Your task to perform on an android device: Show me productivity apps on the Play Store Image 0: 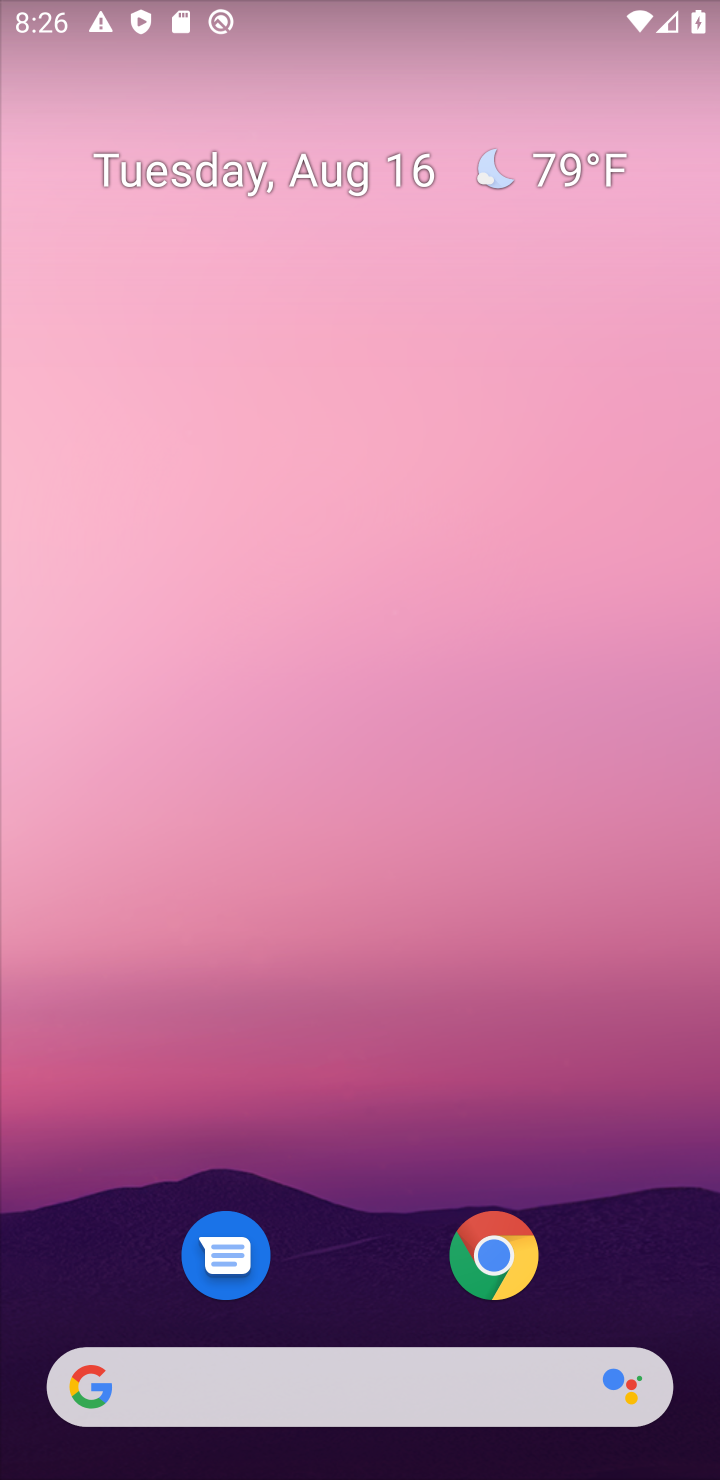
Step 0: drag from (325, 1406) to (463, 187)
Your task to perform on an android device: Show me productivity apps on the Play Store Image 1: 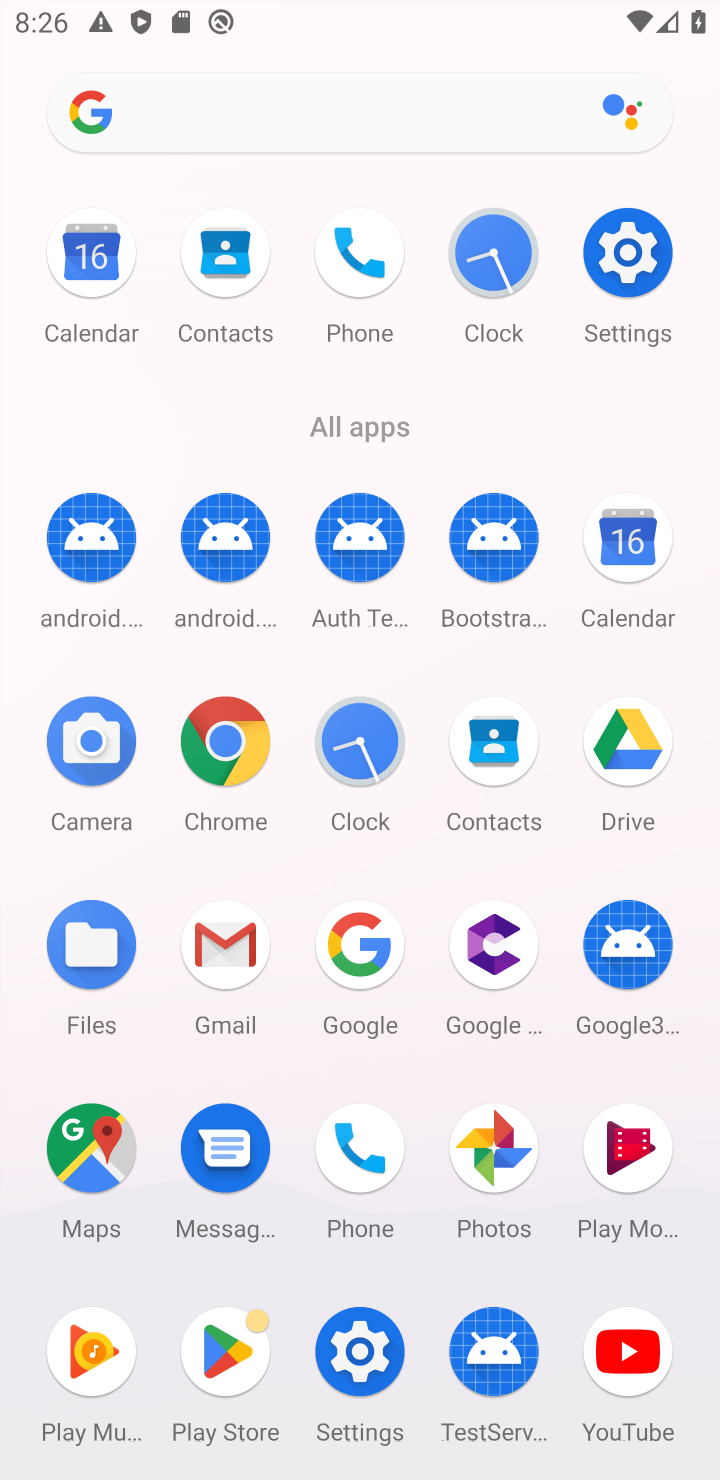
Step 1: click (242, 1359)
Your task to perform on an android device: Show me productivity apps on the Play Store Image 2: 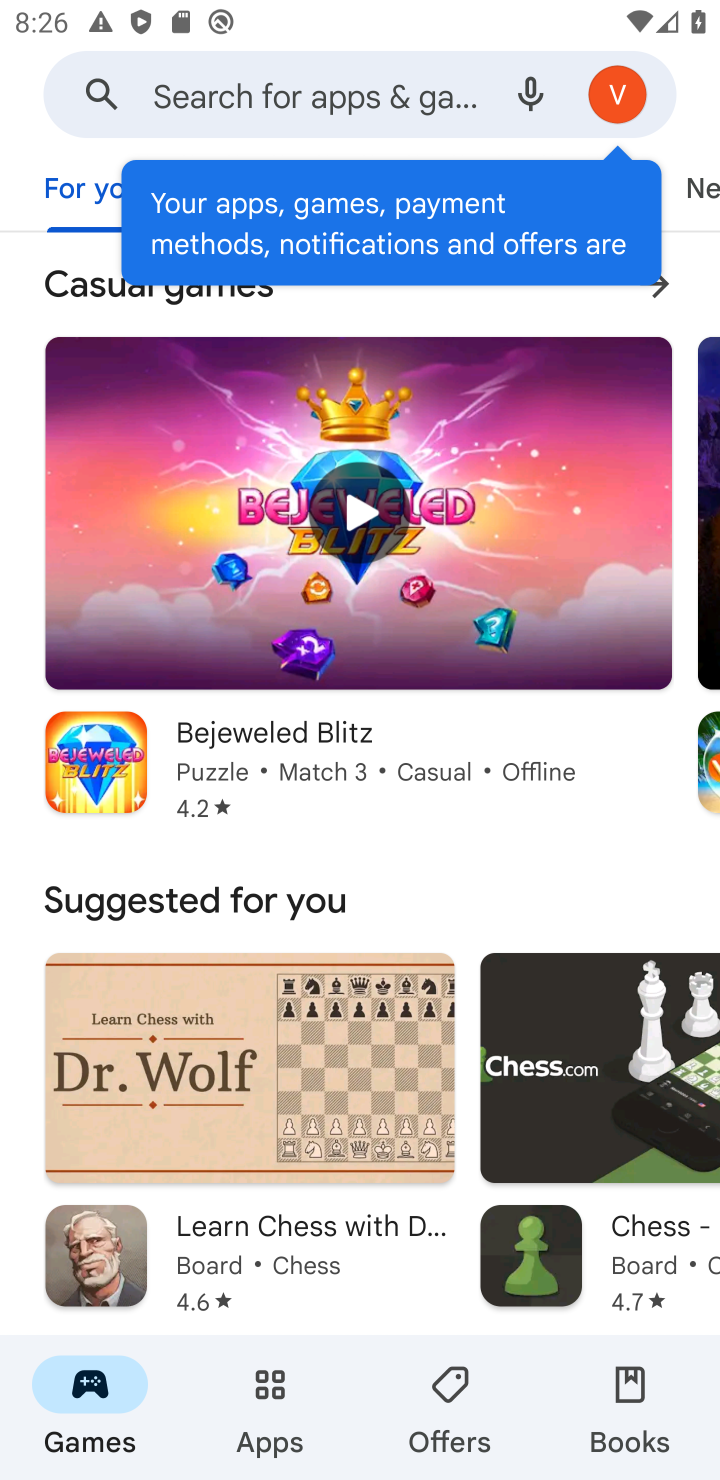
Step 2: click (144, 200)
Your task to perform on an android device: Show me productivity apps on the Play Store Image 3: 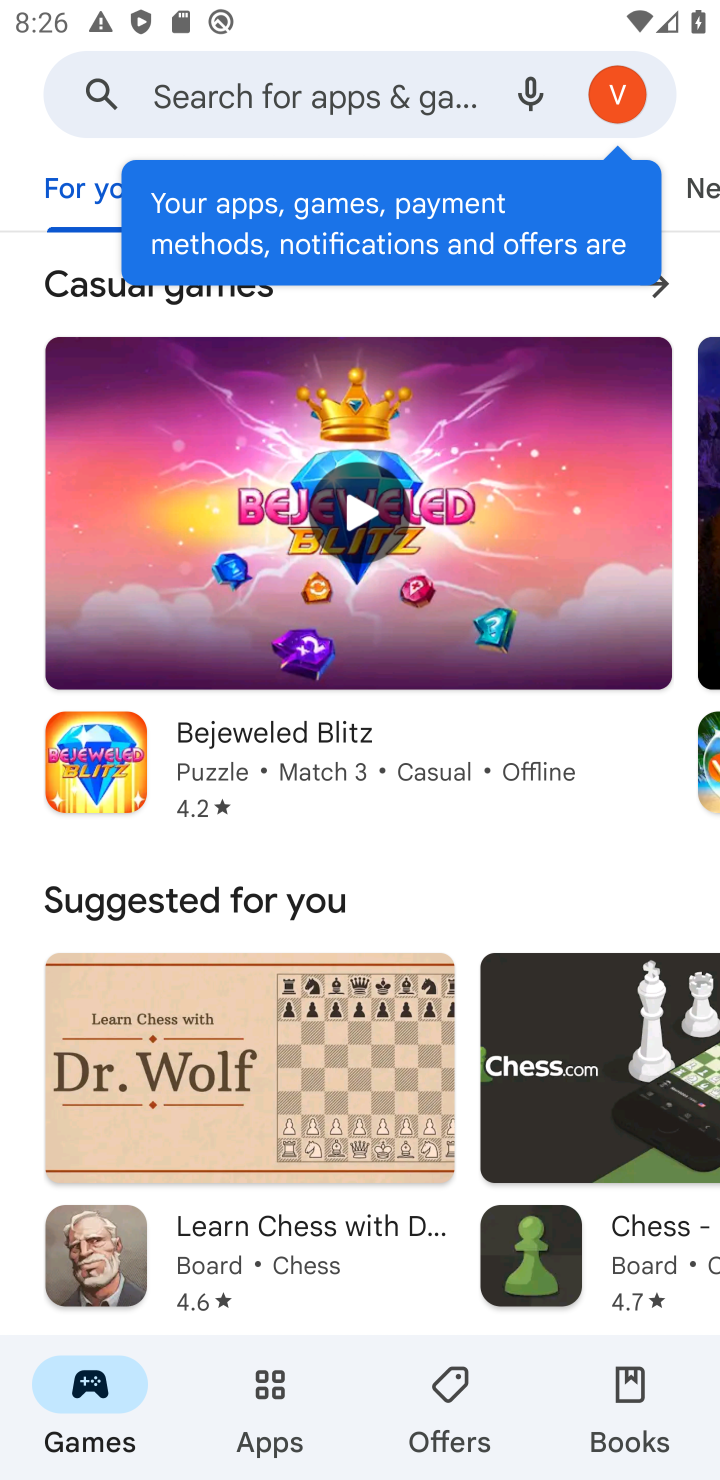
Step 3: click (80, 205)
Your task to perform on an android device: Show me productivity apps on the Play Store Image 4: 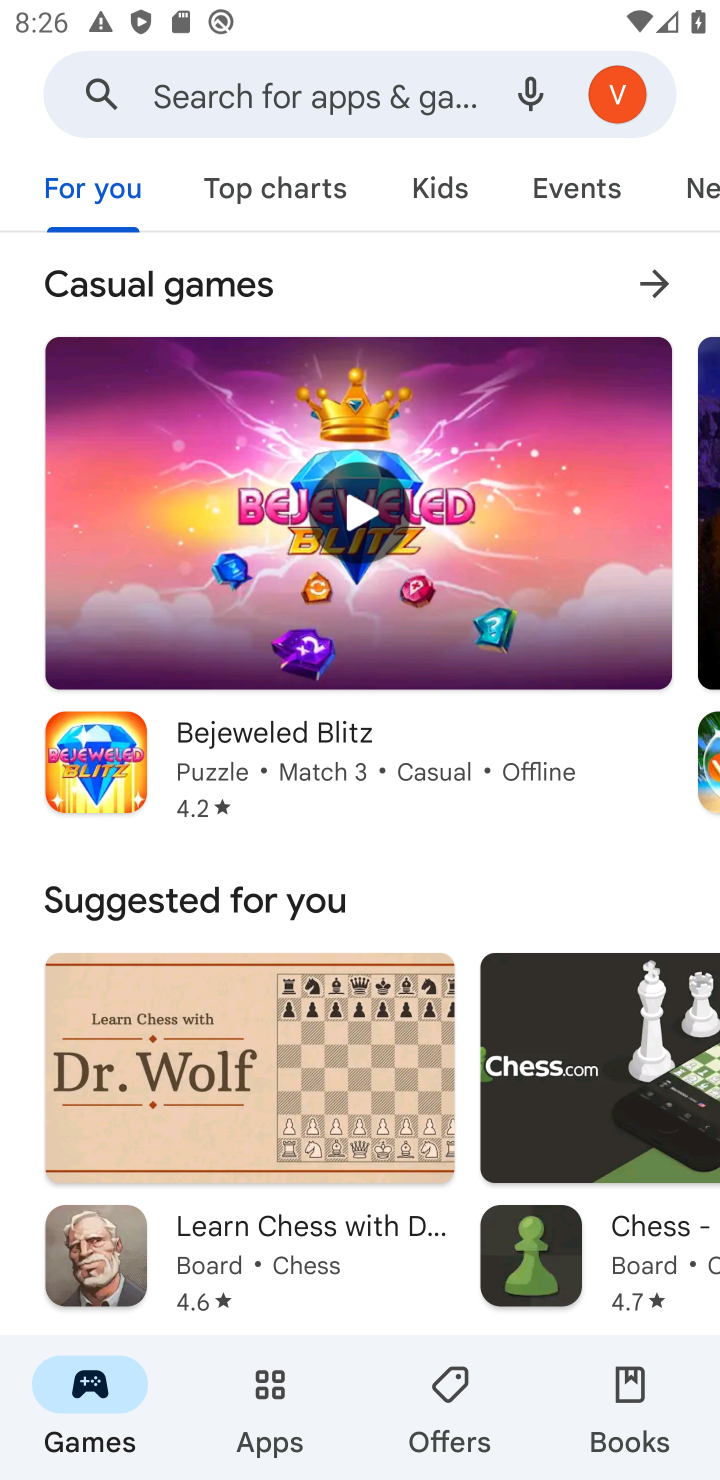
Step 4: click (273, 1406)
Your task to perform on an android device: Show me productivity apps on the Play Store Image 5: 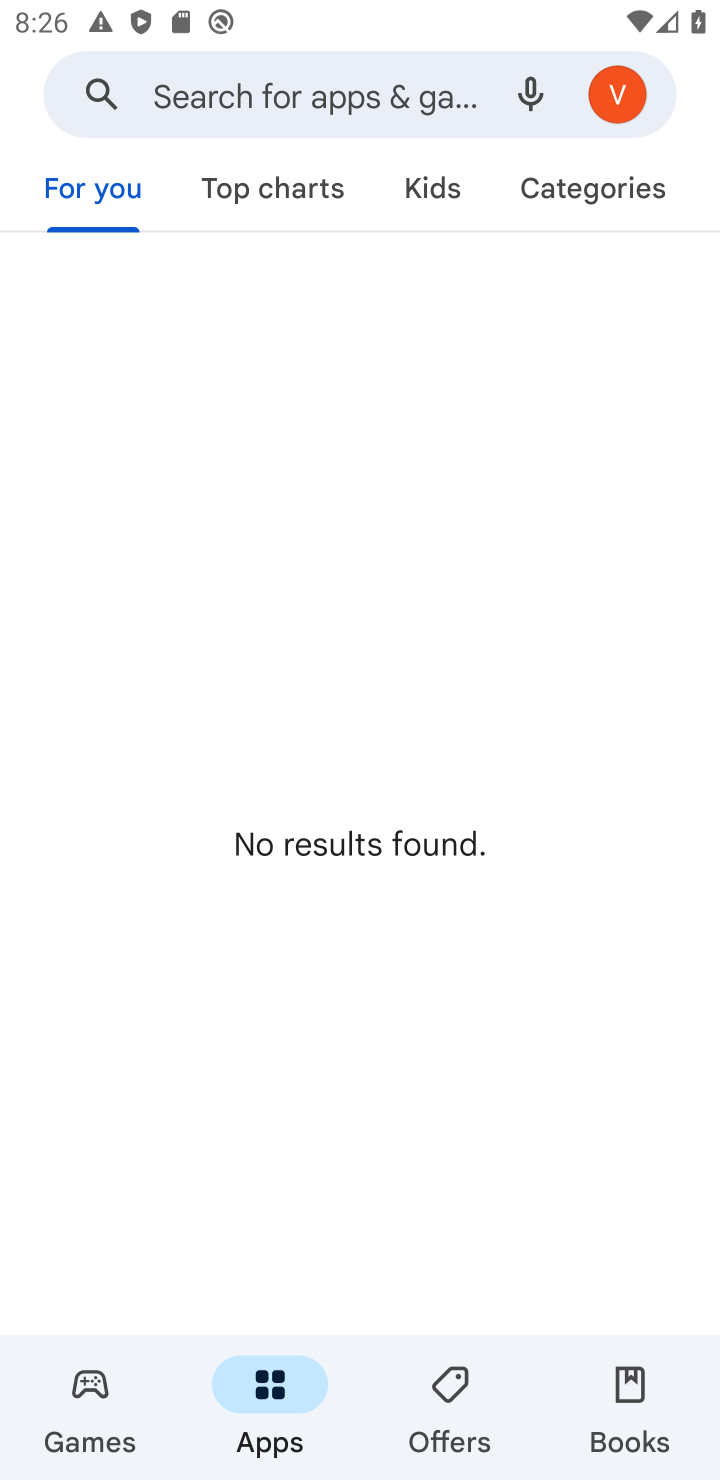
Step 5: click (561, 192)
Your task to perform on an android device: Show me productivity apps on the Play Store Image 6: 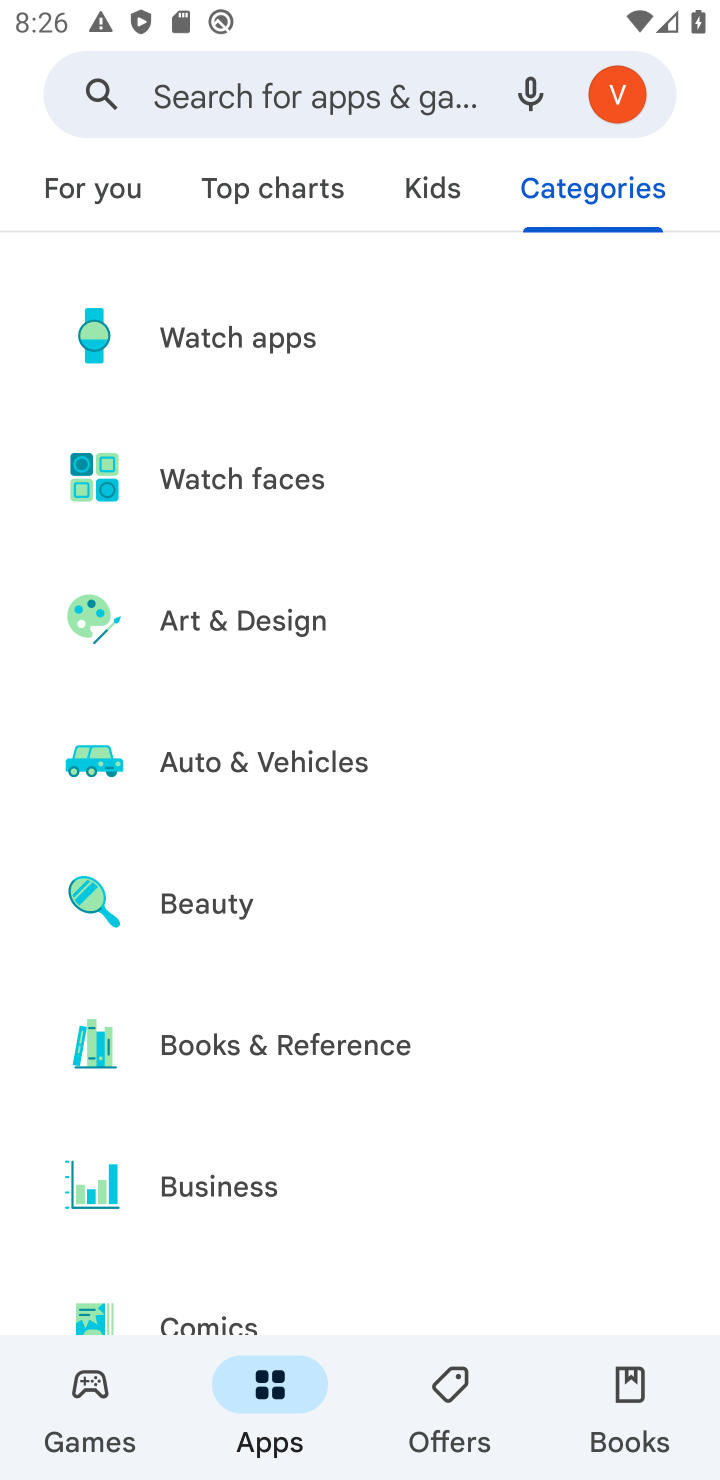
Step 6: drag from (289, 1181) to (183, 38)
Your task to perform on an android device: Show me productivity apps on the Play Store Image 7: 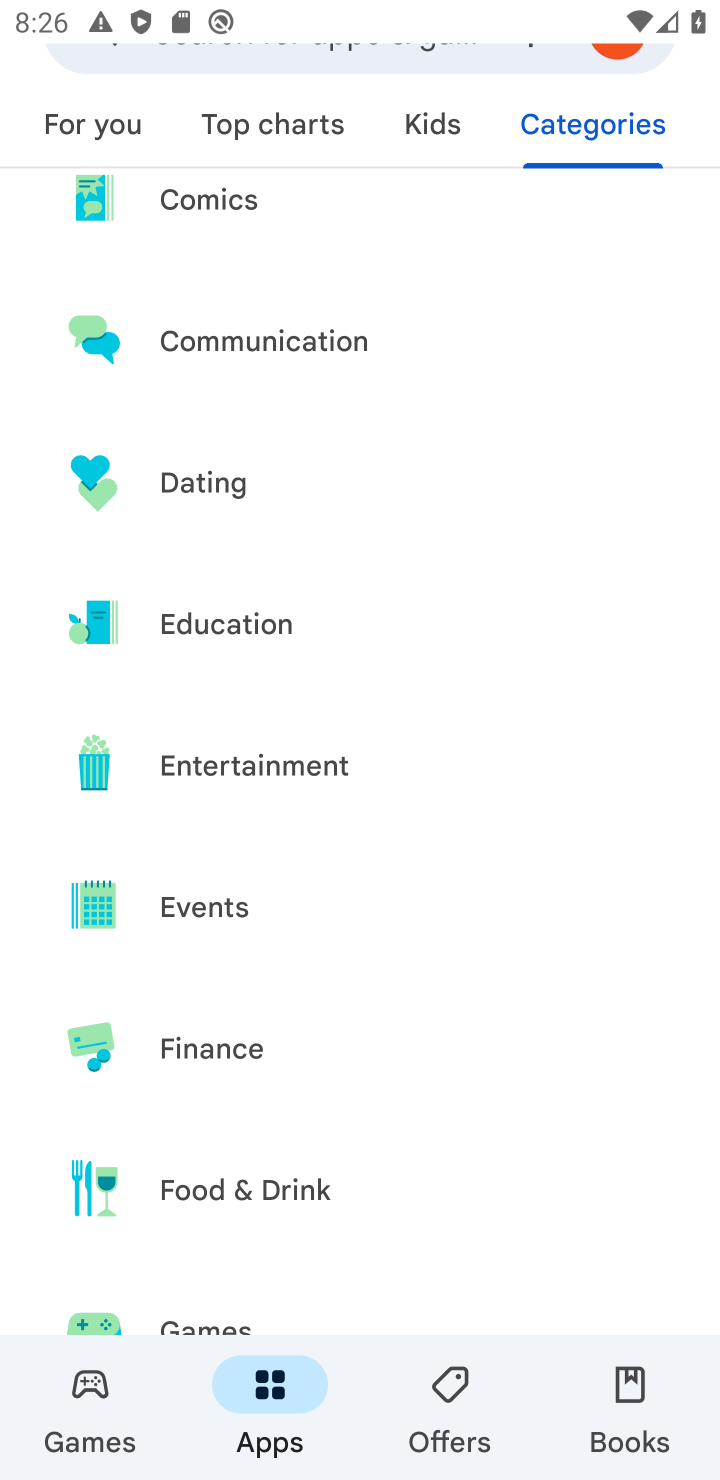
Step 7: drag from (269, 1218) to (361, 245)
Your task to perform on an android device: Show me productivity apps on the Play Store Image 8: 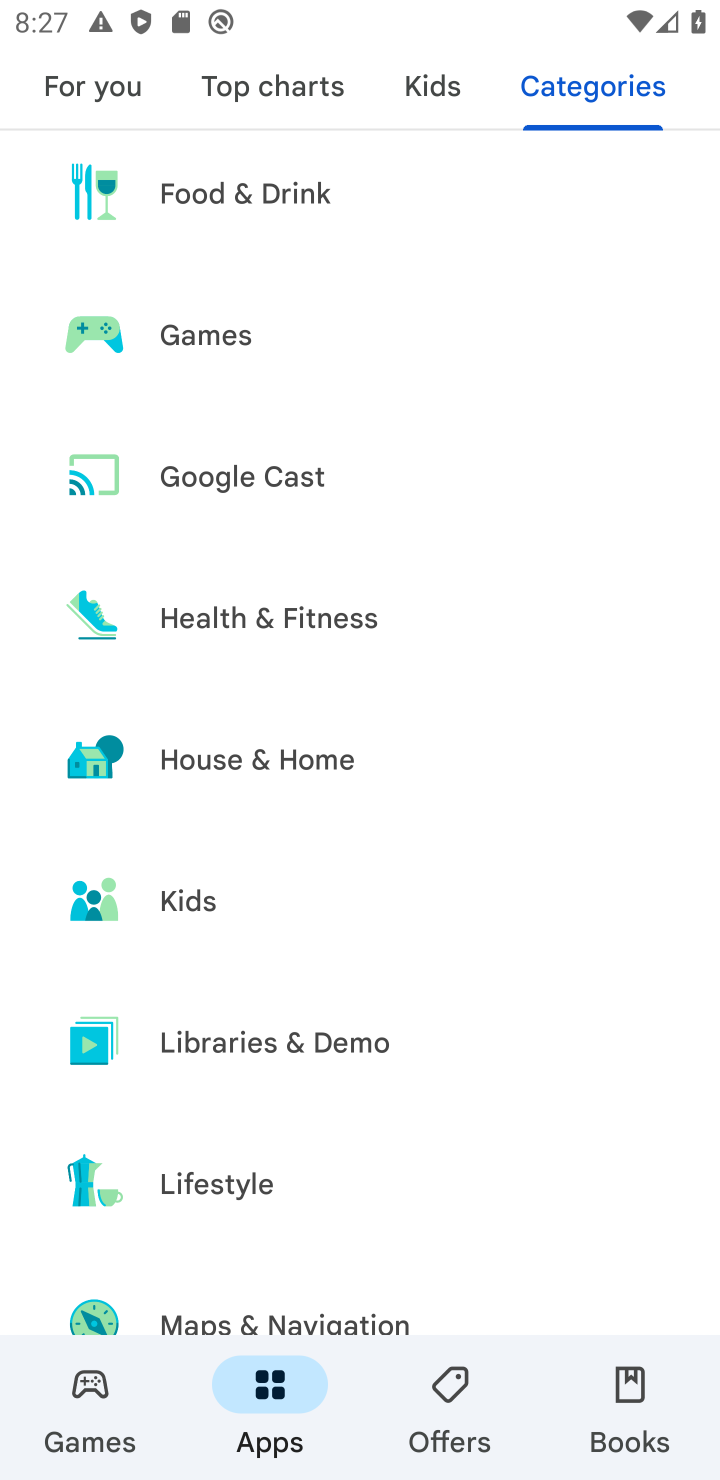
Step 8: drag from (332, 1260) to (367, 234)
Your task to perform on an android device: Show me productivity apps on the Play Store Image 9: 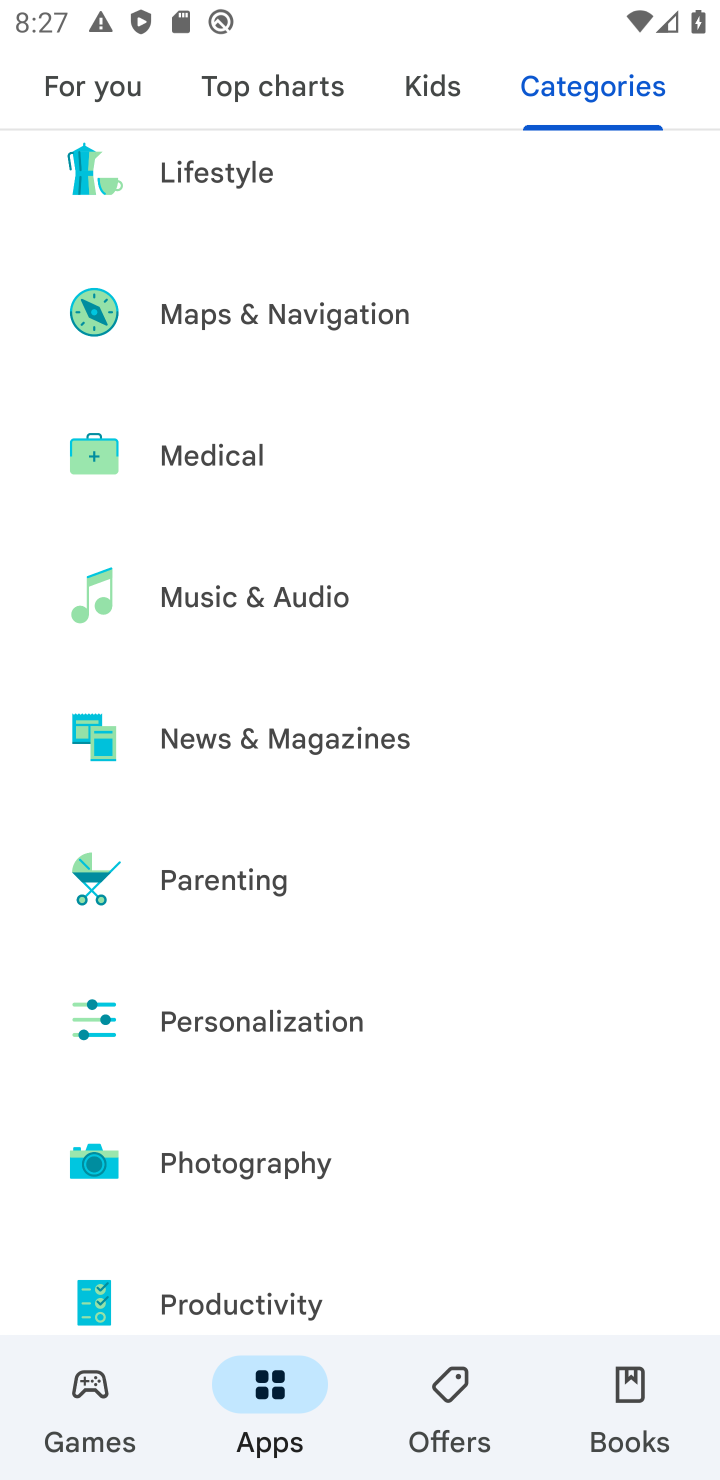
Step 9: click (271, 1302)
Your task to perform on an android device: Show me productivity apps on the Play Store Image 10: 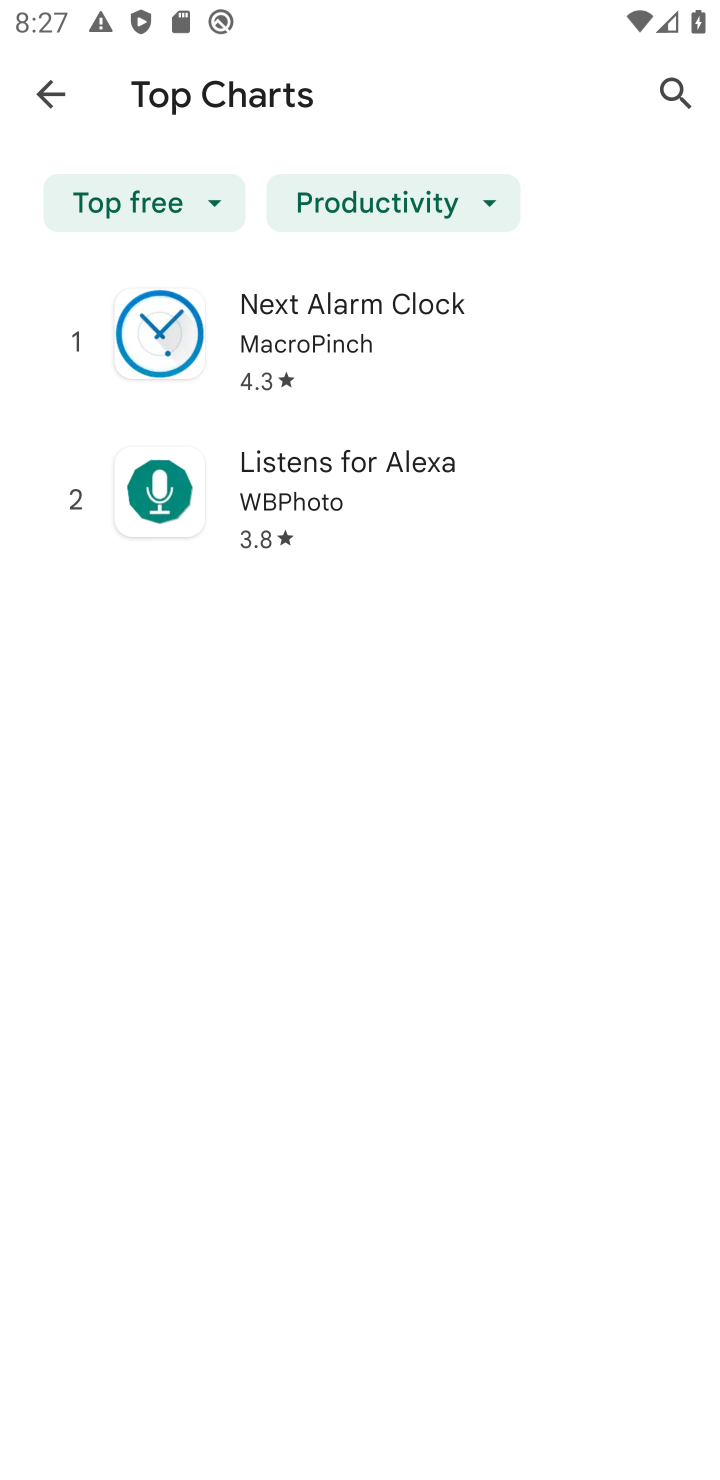
Step 10: task complete